Your task to perform on an android device: Go to location settings Image 0: 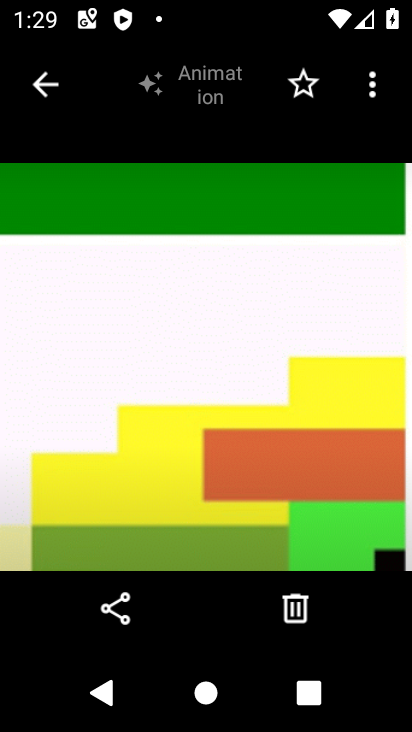
Step 0: press home button
Your task to perform on an android device: Go to location settings Image 1: 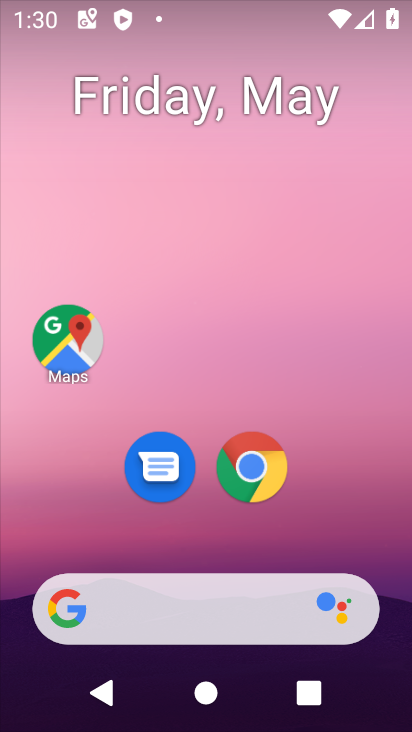
Step 1: drag from (352, 506) to (299, 43)
Your task to perform on an android device: Go to location settings Image 2: 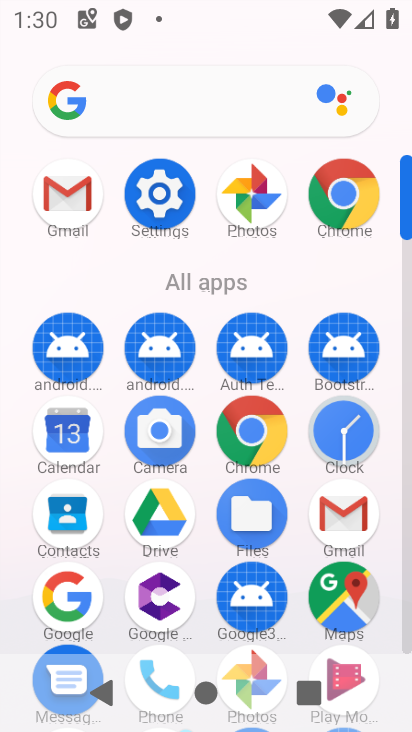
Step 2: click (179, 197)
Your task to perform on an android device: Go to location settings Image 3: 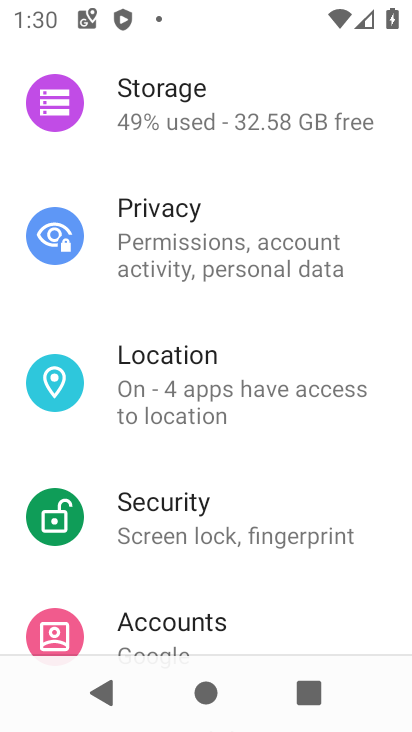
Step 3: click (149, 355)
Your task to perform on an android device: Go to location settings Image 4: 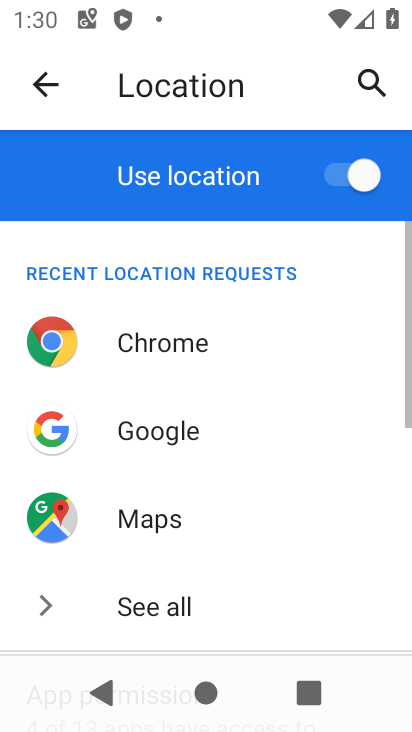
Step 4: task complete